Your task to perform on an android device: Open accessibility settings Image 0: 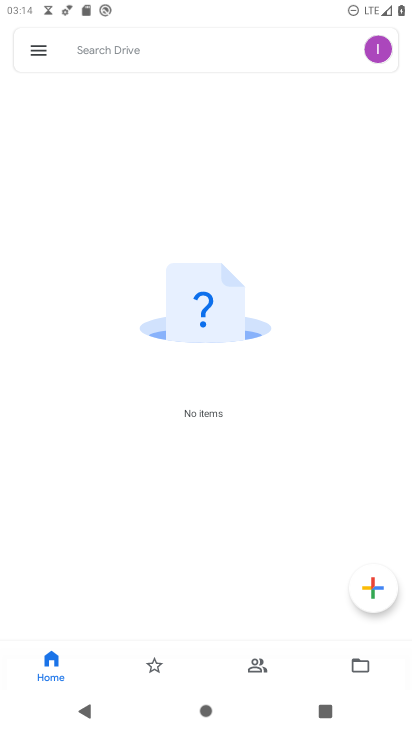
Step 0: press home button
Your task to perform on an android device: Open accessibility settings Image 1: 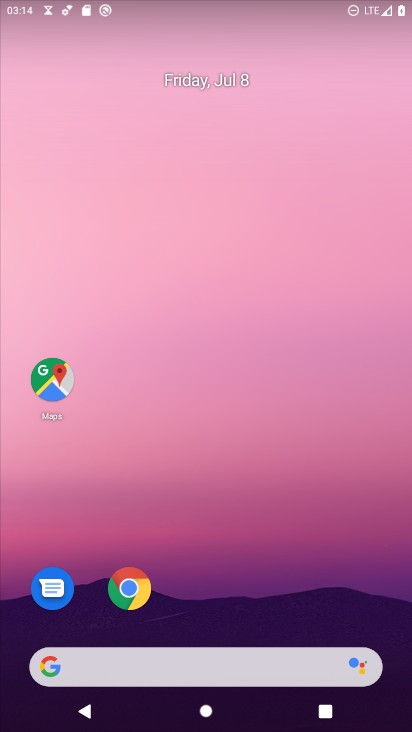
Step 1: drag from (188, 274) to (187, 162)
Your task to perform on an android device: Open accessibility settings Image 2: 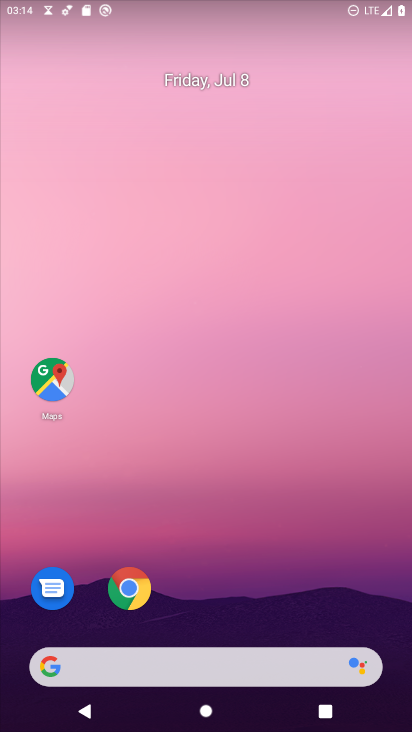
Step 2: drag from (209, 498) to (209, 135)
Your task to perform on an android device: Open accessibility settings Image 3: 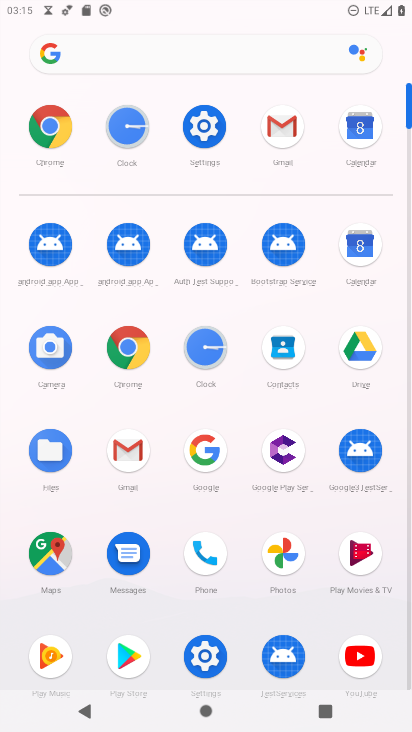
Step 3: click (204, 130)
Your task to perform on an android device: Open accessibility settings Image 4: 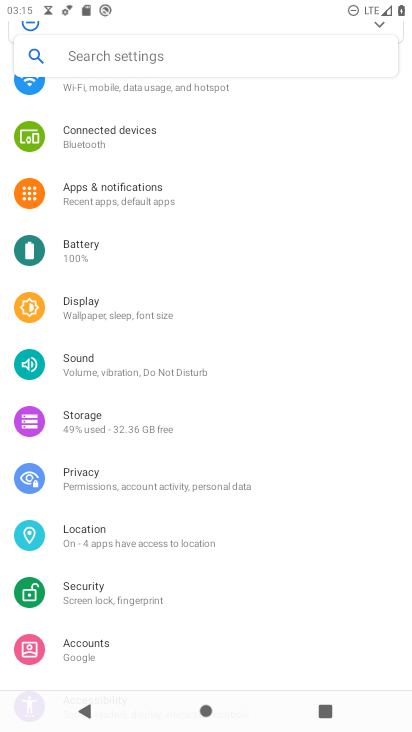
Step 4: drag from (130, 562) to (135, 265)
Your task to perform on an android device: Open accessibility settings Image 5: 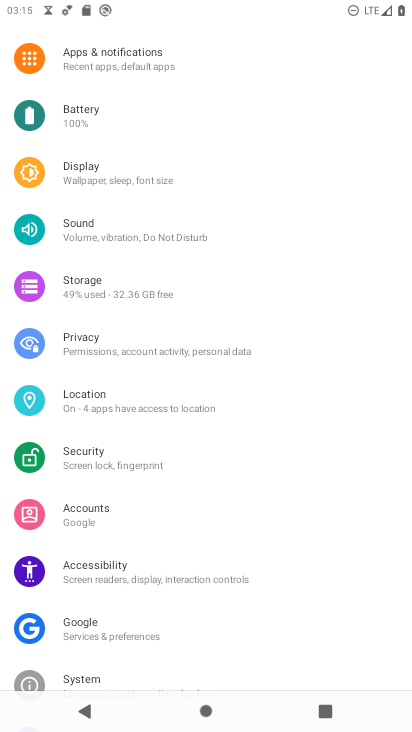
Step 5: click (90, 568)
Your task to perform on an android device: Open accessibility settings Image 6: 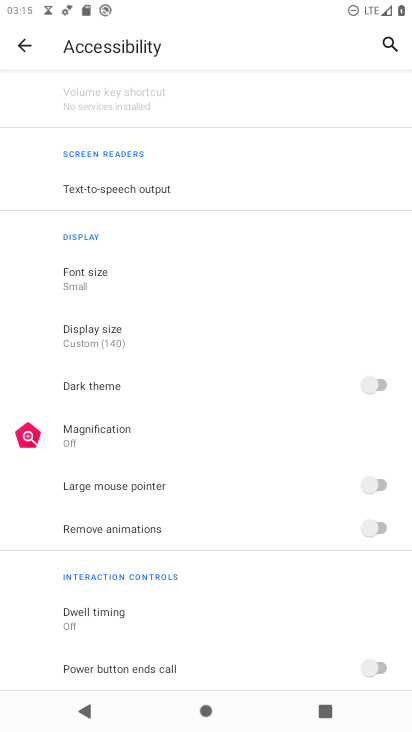
Step 6: task complete